Your task to perform on an android device: Open location settings Image 0: 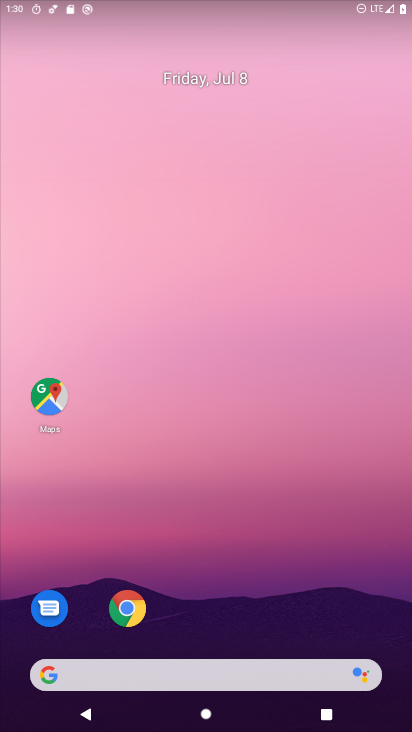
Step 0: drag from (235, 729) to (233, 101)
Your task to perform on an android device: Open location settings Image 1: 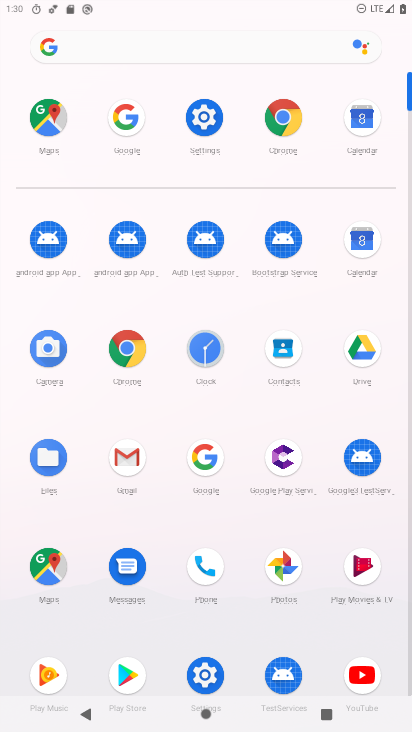
Step 1: click (204, 111)
Your task to perform on an android device: Open location settings Image 2: 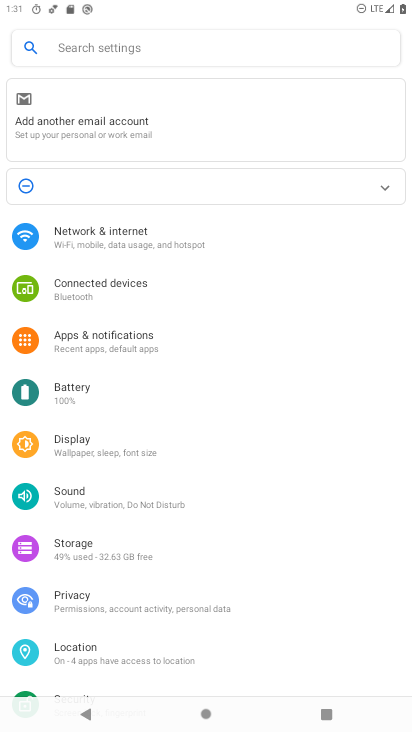
Step 2: click (84, 650)
Your task to perform on an android device: Open location settings Image 3: 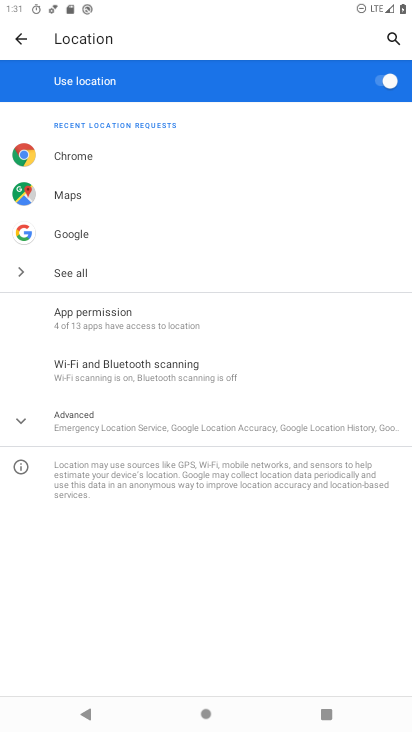
Step 3: task complete